Your task to perform on an android device: Go to Google maps Image 0: 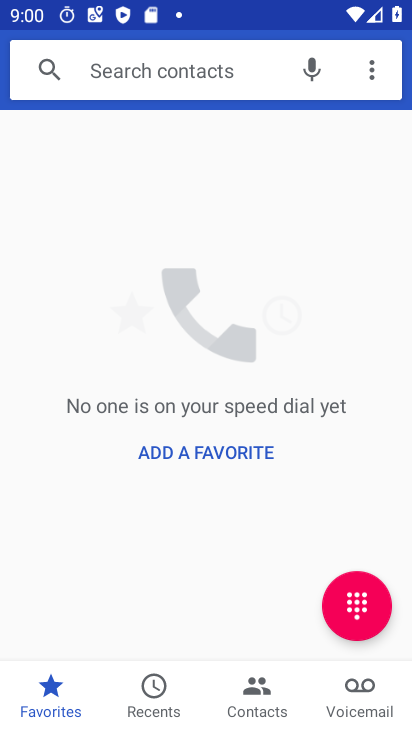
Step 0: press back button
Your task to perform on an android device: Go to Google maps Image 1: 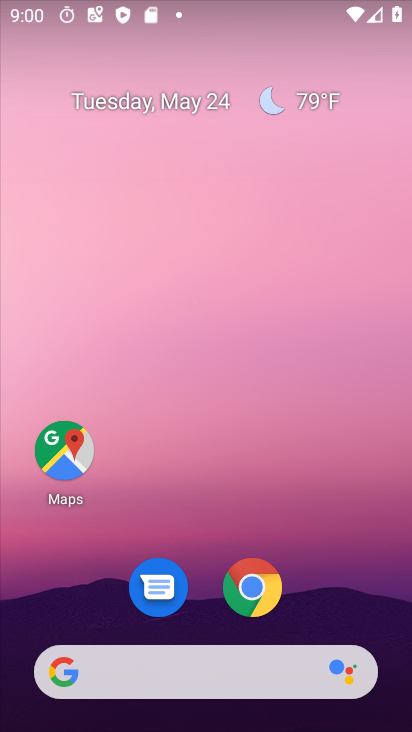
Step 1: click (64, 451)
Your task to perform on an android device: Go to Google maps Image 2: 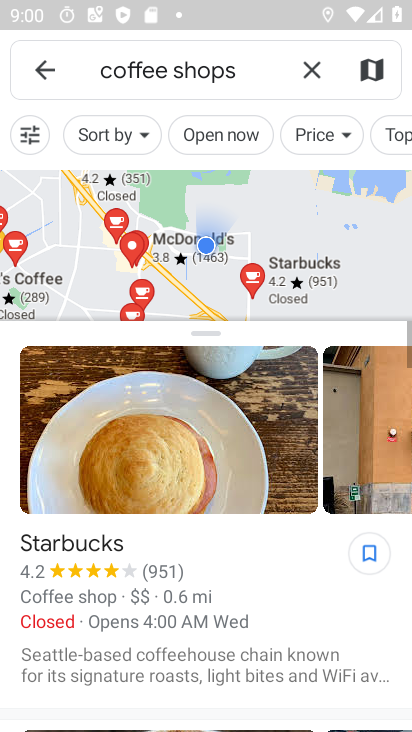
Step 2: click (308, 73)
Your task to perform on an android device: Go to Google maps Image 3: 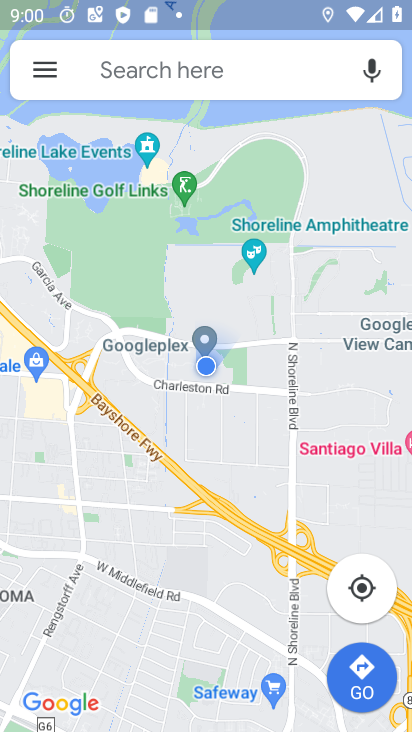
Step 3: task complete